Your task to perform on an android device: change the clock display to show seconds Image 0: 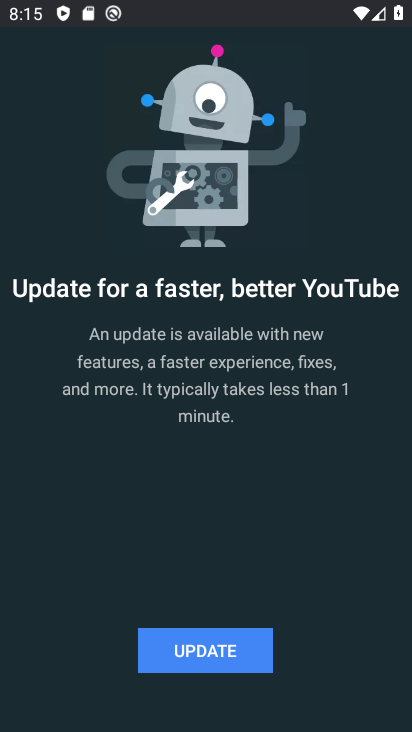
Step 0: press home button
Your task to perform on an android device: change the clock display to show seconds Image 1: 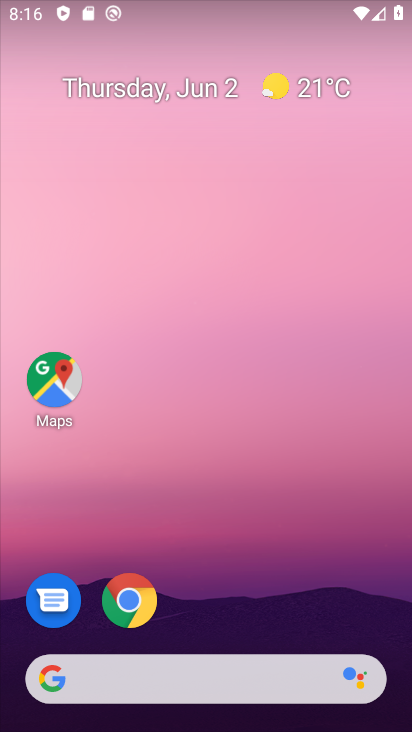
Step 1: drag from (208, 628) to (208, 215)
Your task to perform on an android device: change the clock display to show seconds Image 2: 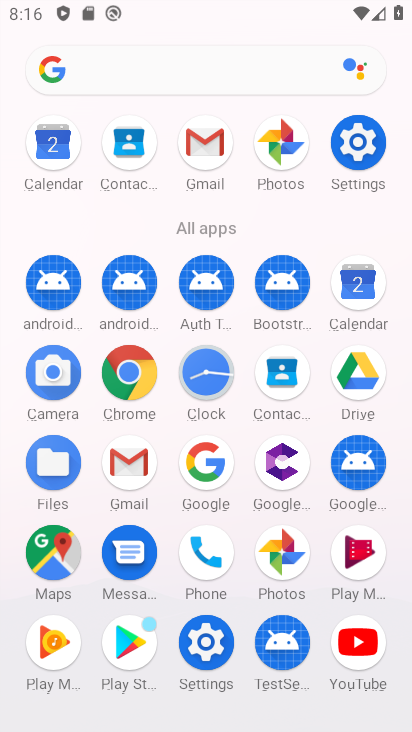
Step 2: click (200, 376)
Your task to perform on an android device: change the clock display to show seconds Image 3: 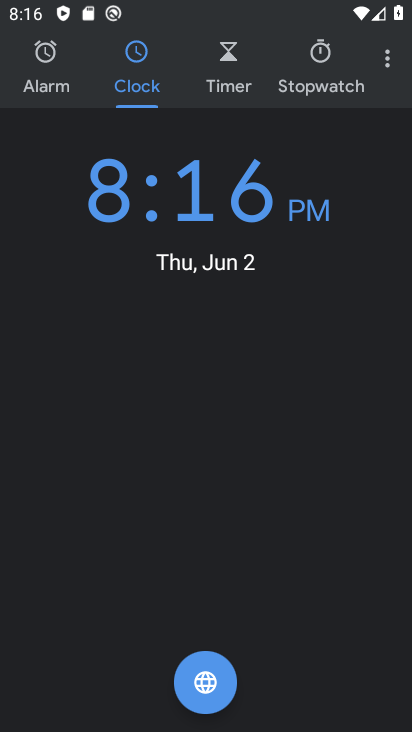
Step 3: click (384, 59)
Your task to perform on an android device: change the clock display to show seconds Image 4: 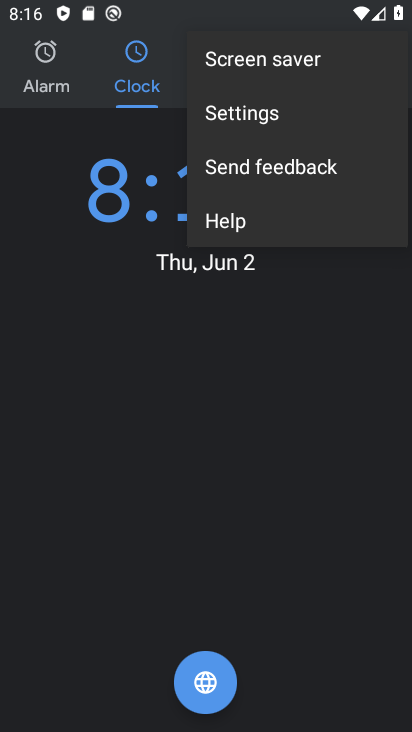
Step 4: click (272, 108)
Your task to perform on an android device: change the clock display to show seconds Image 5: 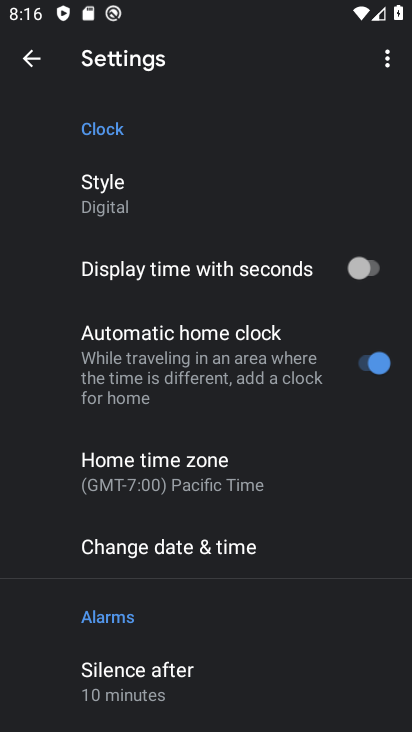
Step 5: click (369, 271)
Your task to perform on an android device: change the clock display to show seconds Image 6: 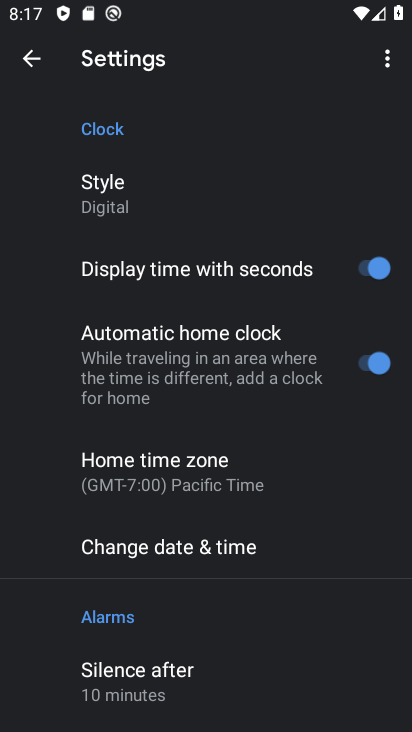
Step 6: task complete